Your task to perform on an android device: What is the recent news? Image 0: 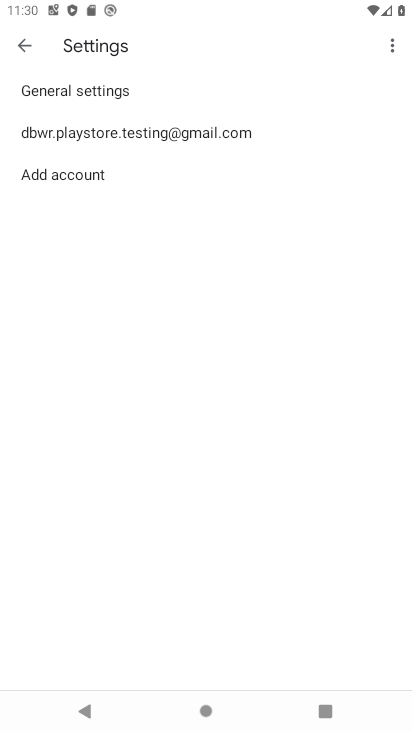
Step 0: press home button
Your task to perform on an android device: What is the recent news? Image 1: 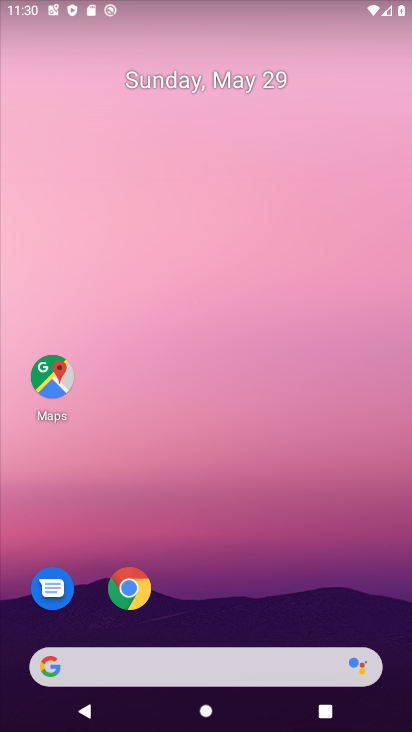
Step 1: drag from (335, 548) to (221, 2)
Your task to perform on an android device: What is the recent news? Image 2: 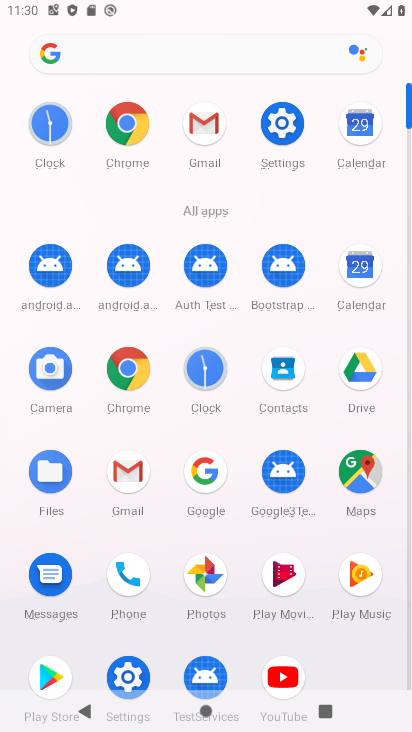
Step 2: click (116, 121)
Your task to perform on an android device: What is the recent news? Image 3: 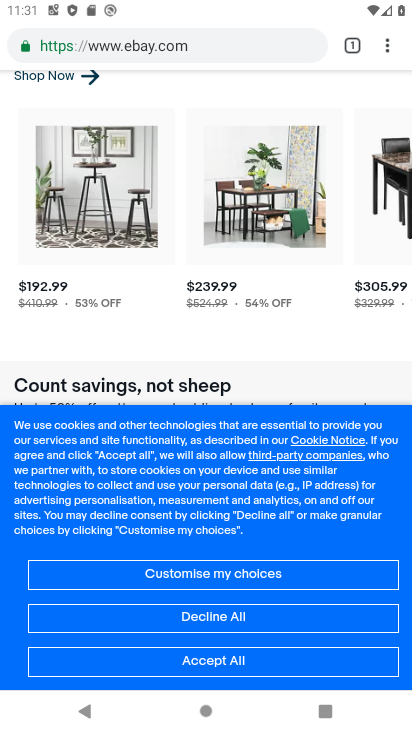
Step 3: task complete